Your task to perform on an android device: Go to wifi settings Image 0: 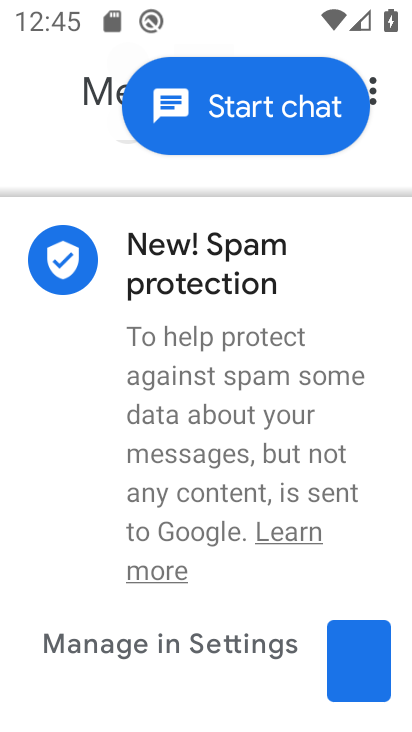
Step 0: press home button
Your task to perform on an android device: Go to wifi settings Image 1: 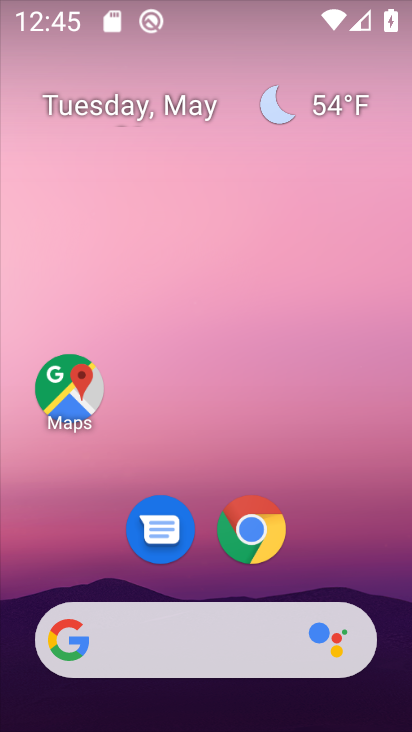
Step 1: drag from (329, 568) to (345, 189)
Your task to perform on an android device: Go to wifi settings Image 2: 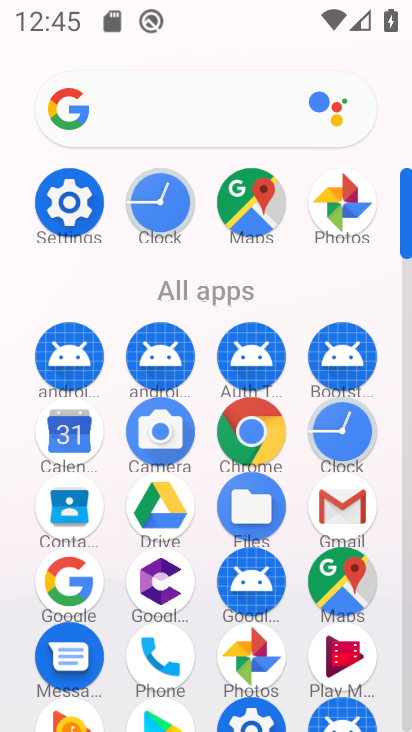
Step 2: click (66, 192)
Your task to perform on an android device: Go to wifi settings Image 3: 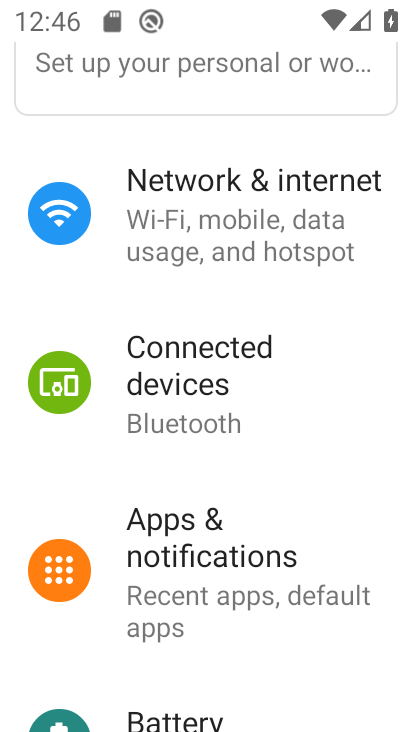
Step 3: click (226, 199)
Your task to perform on an android device: Go to wifi settings Image 4: 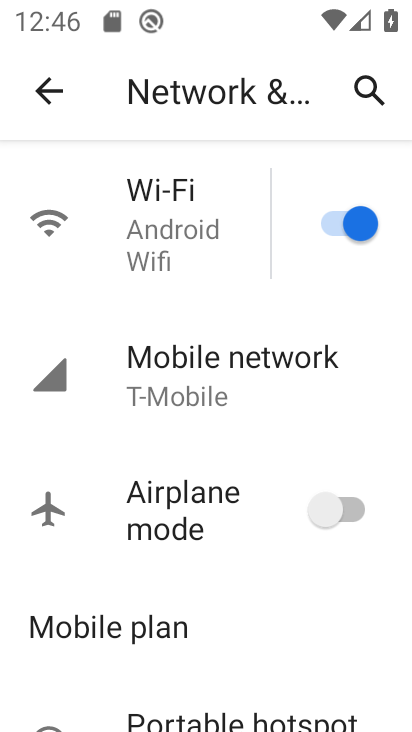
Step 4: task complete